Your task to perform on an android device: Search for vegetarian restaurants on Maps Image 0: 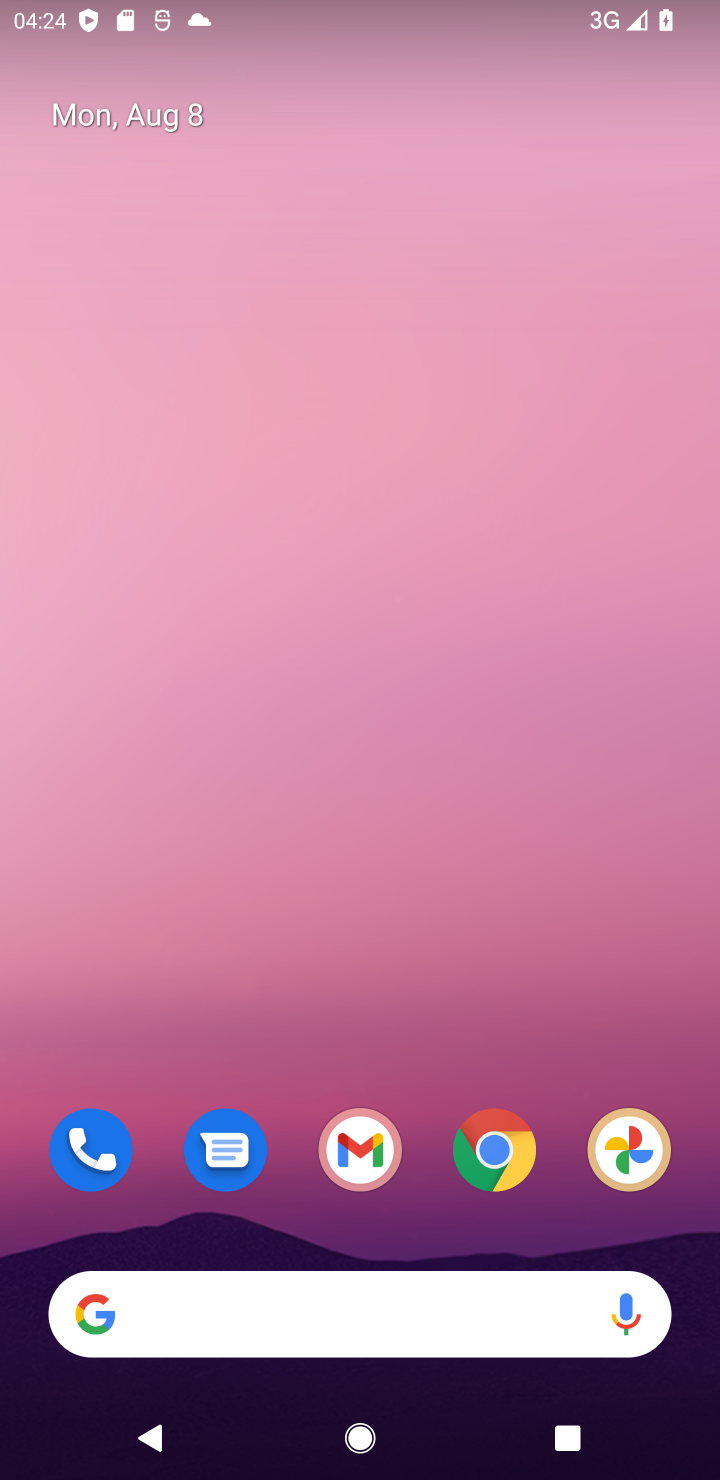
Step 0: drag from (168, 1355) to (279, 793)
Your task to perform on an android device: Search for vegetarian restaurants on Maps Image 1: 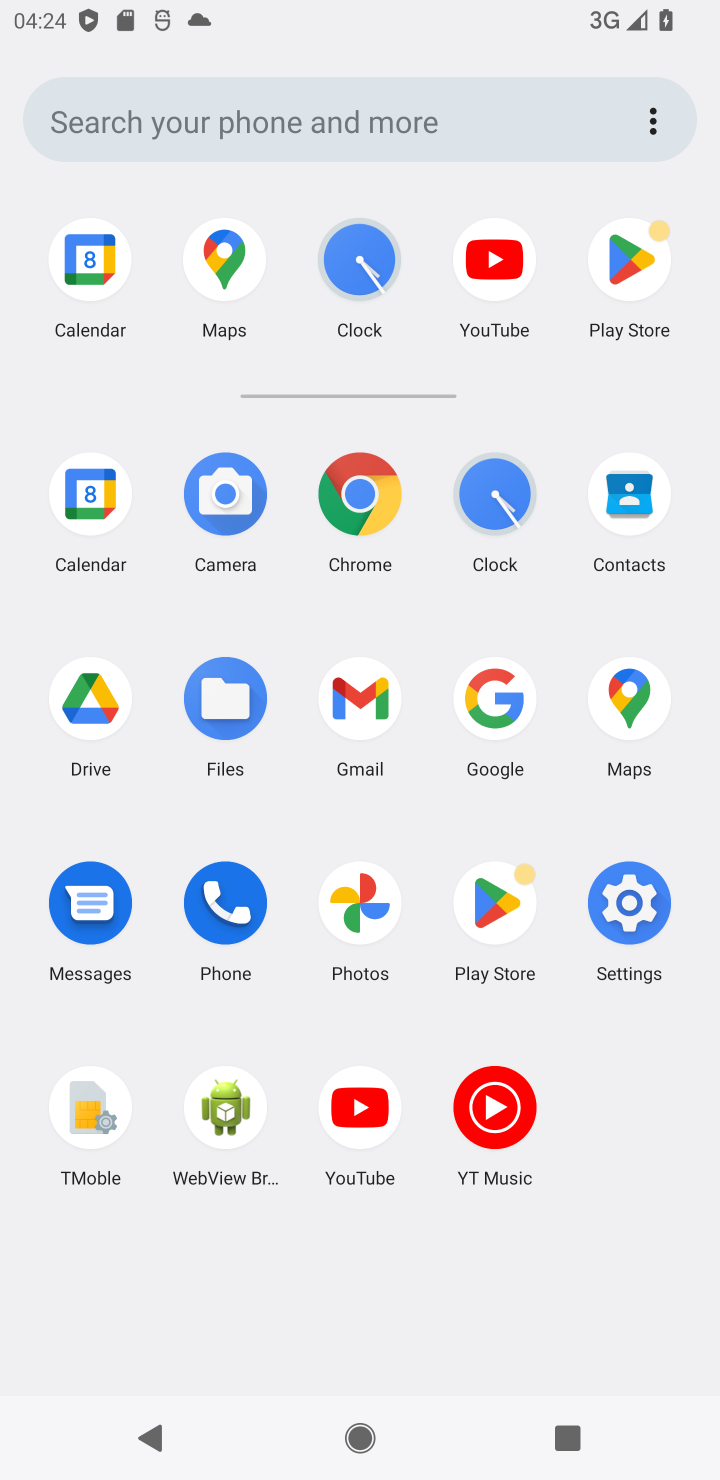
Step 1: click (645, 719)
Your task to perform on an android device: Search for vegetarian restaurants on Maps Image 2: 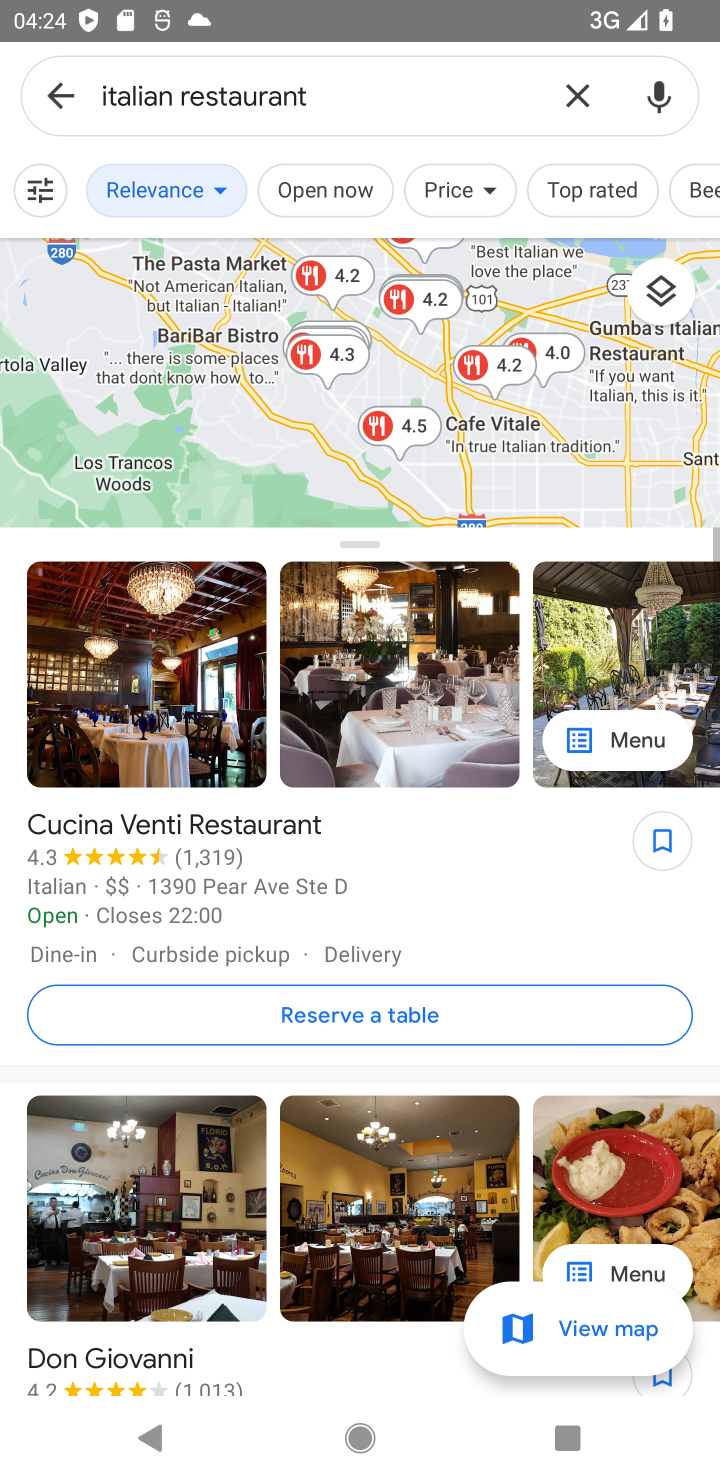
Step 2: click (73, 102)
Your task to perform on an android device: Search for vegetarian restaurants on Maps Image 3: 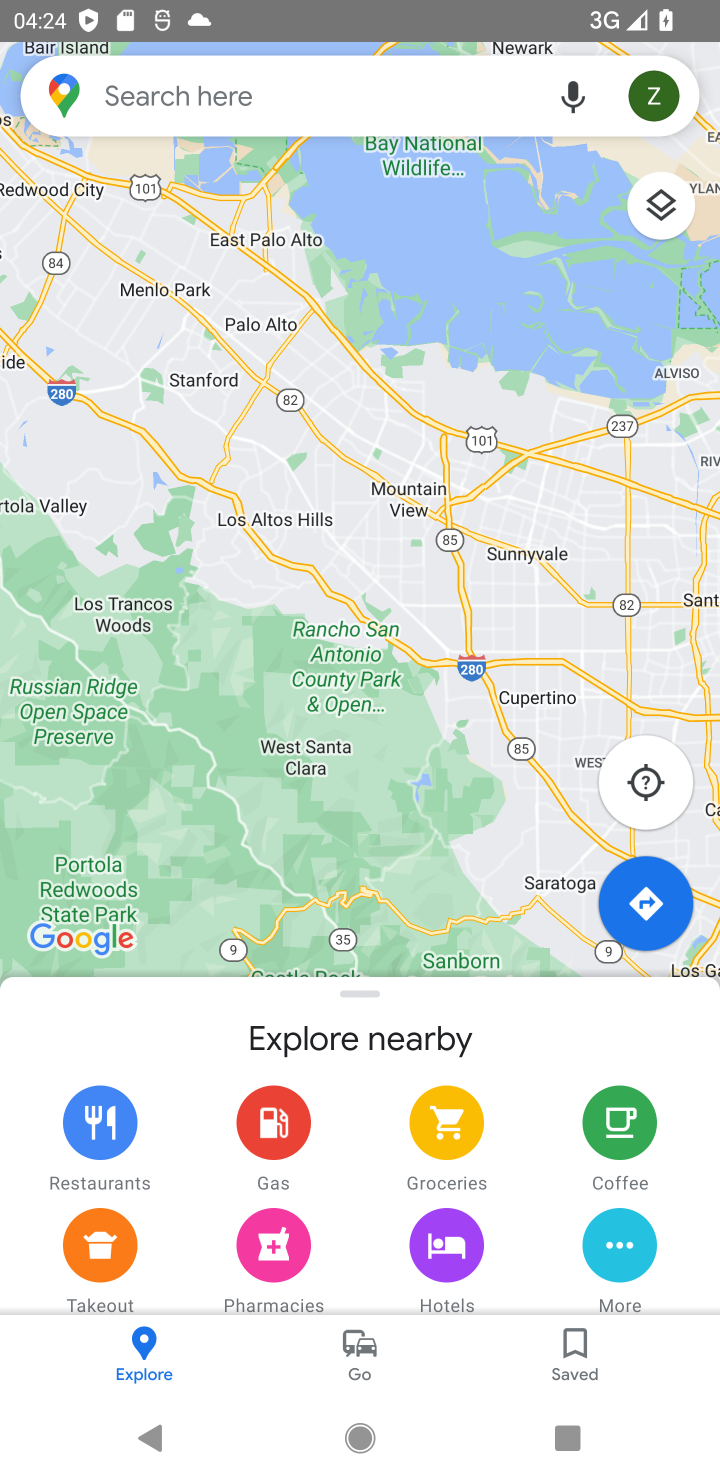
Step 3: click (176, 76)
Your task to perform on an android device: Search for vegetarian restaurants on Maps Image 4: 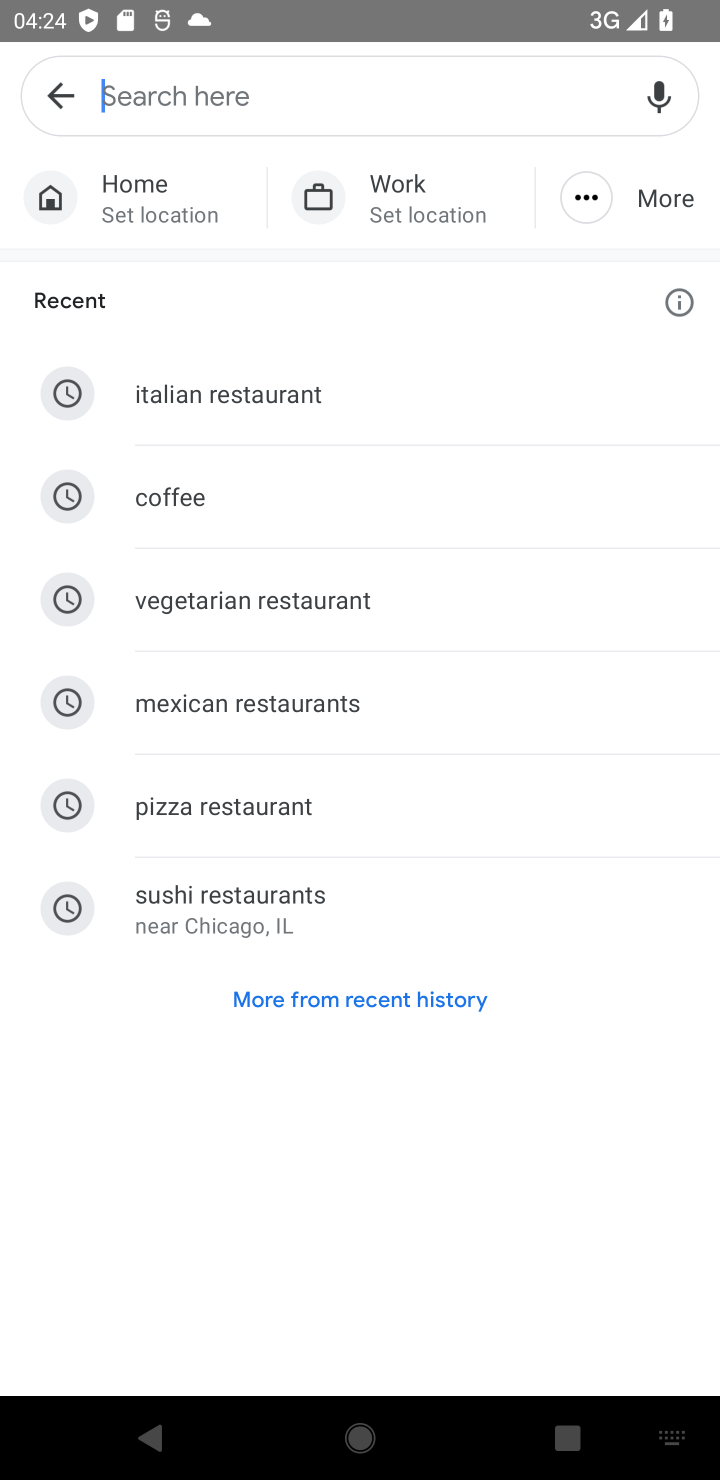
Step 4: click (274, 598)
Your task to perform on an android device: Search for vegetarian restaurants on Maps Image 5: 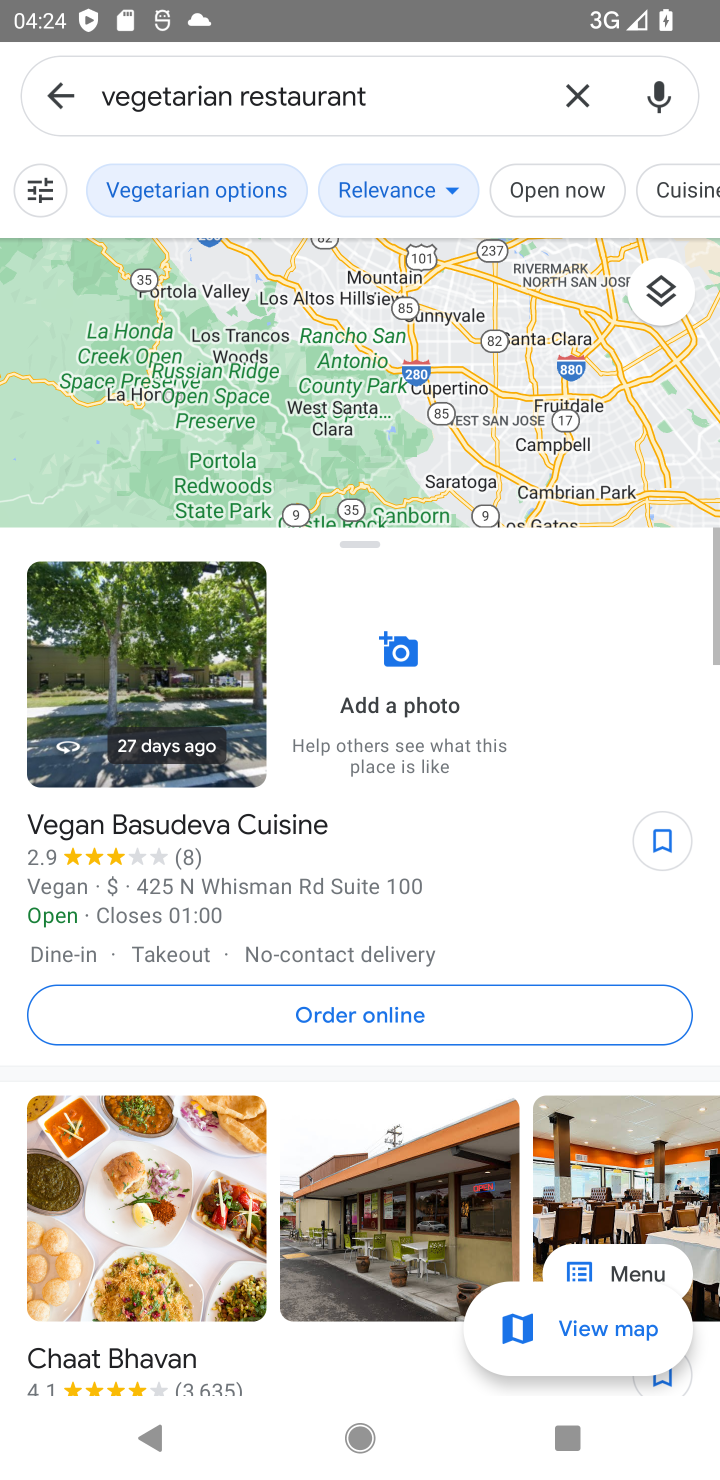
Step 5: task complete